Your task to perform on an android device: Show me productivity apps on the Play Store Image 0: 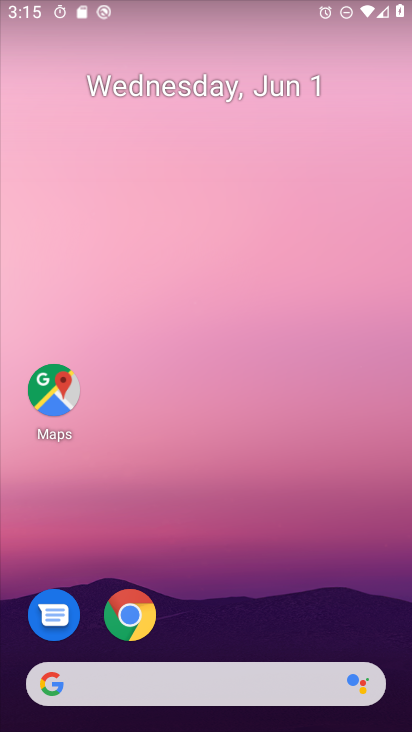
Step 0: drag from (242, 664) to (250, 5)
Your task to perform on an android device: Show me productivity apps on the Play Store Image 1: 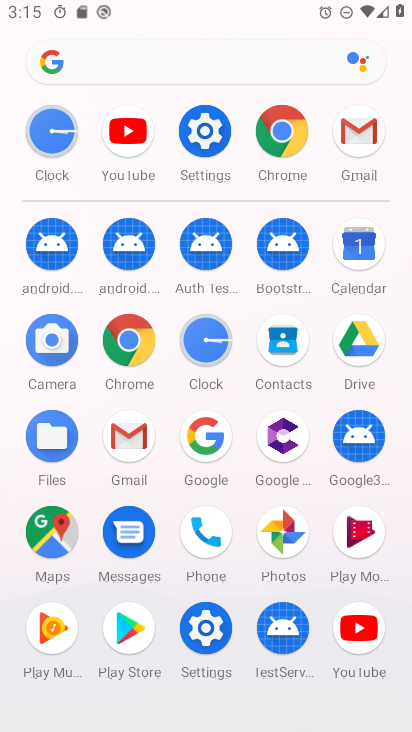
Step 1: click (129, 637)
Your task to perform on an android device: Show me productivity apps on the Play Store Image 2: 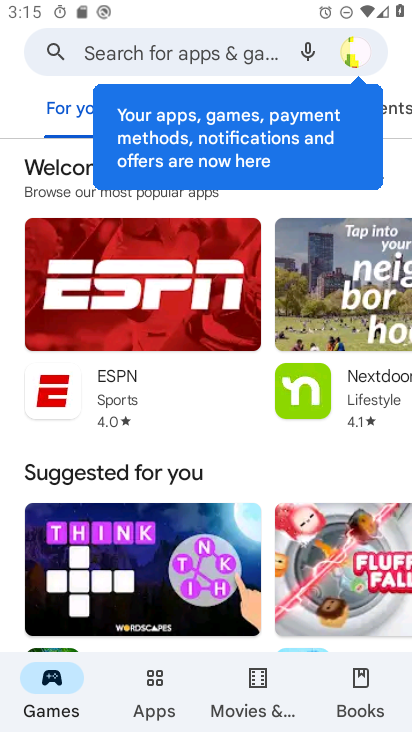
Step 2: click (166, 693)
Your task to perform on an android device: Show me productivity apps on the Play Store Image 3: 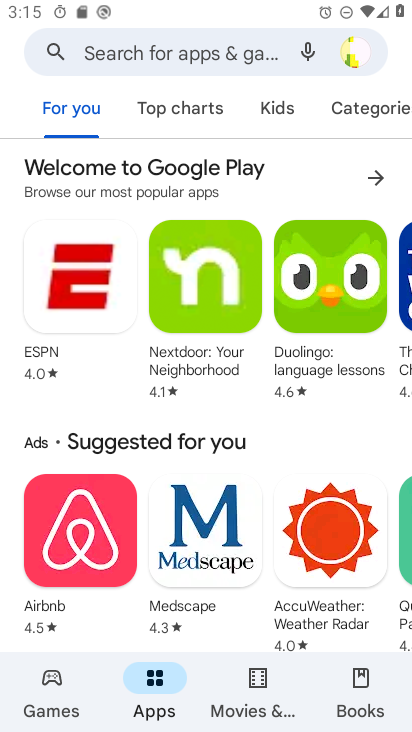
Step 3: drag from (271, 582) to (294, 75)
Your task to perform on an android device: Show me productivity apps on the Play Store Image 4: 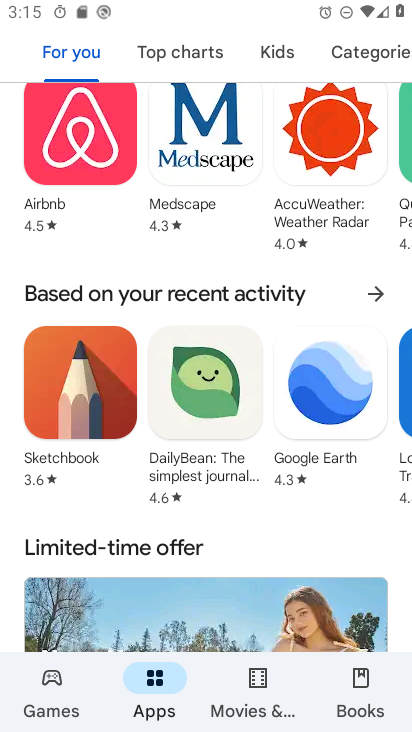
Step 4: drag from (232, 598) to (219, 128)
Your task to perform on an android device: Show me productivity apps on the Play Store Image 5: 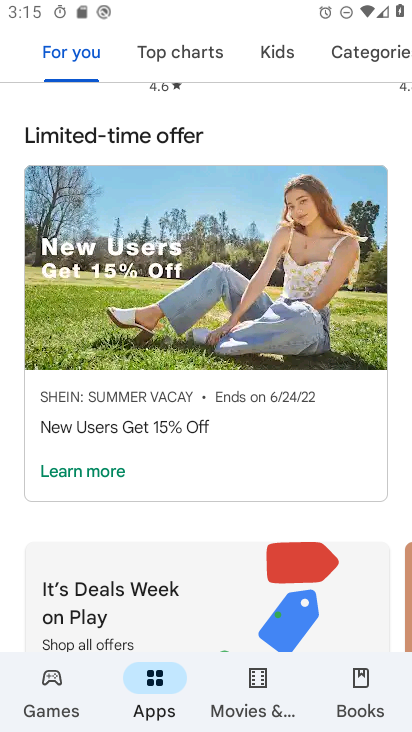
Step 5: drag from (232, 570) to (227, 190)
Your task to perform on an android device: Show me productivity apps on the Play Store Image 6: 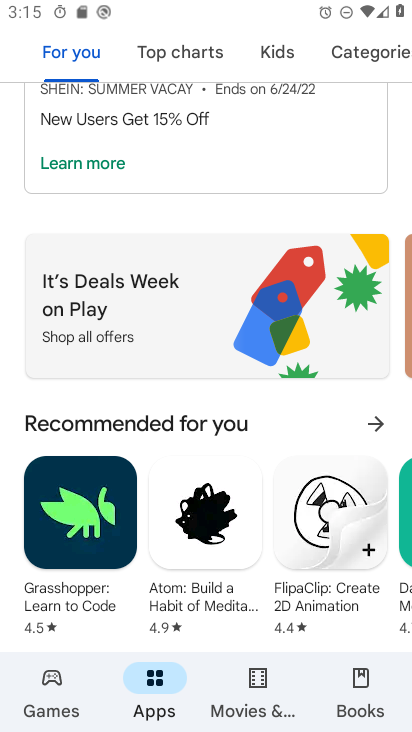
Step 6: drag from (263, 615) to (262, 214)
Your task to perform on an android device: Show me productivity apps on the Play Store Image 7: 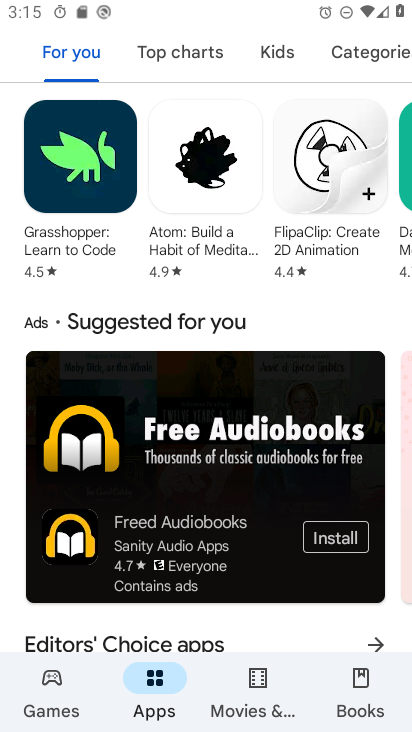
Step 7: drag from (251, 626) to (261, 138)
Your task to perform on an android device: Show me productivity apps on the Play Store Image 8: 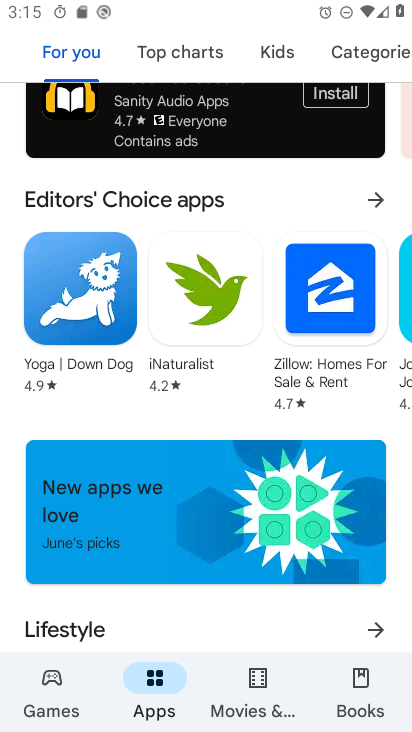
Step 8: drag from (287, 601) to (287, 174)
Your task to perform on an android device: Show me productivity apps on the Play Store Image 9: 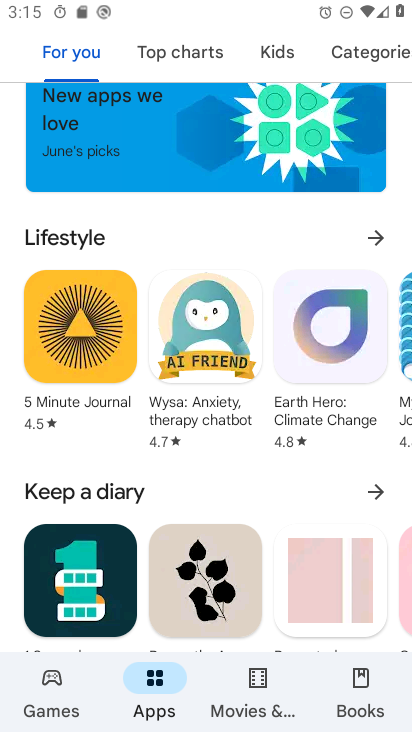
Step 9: drag from (299, 645) to (314, 168)
Your task to perform on an android device: Show me productivity apps on the Play Store Image 10: 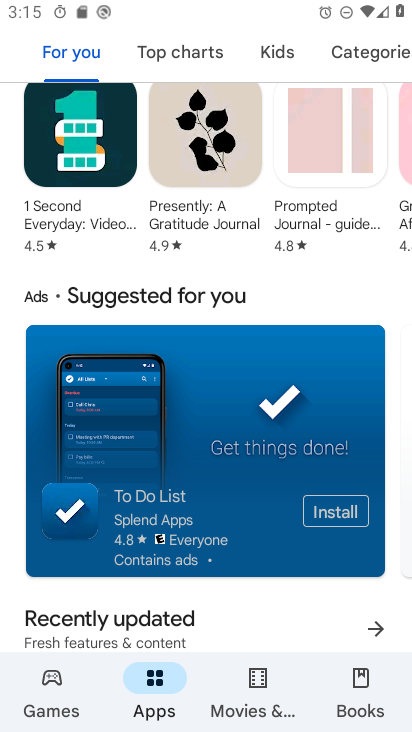
Step 10: drag from (329, 623) to (328, 150)
Your task to perform on an android device: Show me productivity apps on the Play Store Image 11: 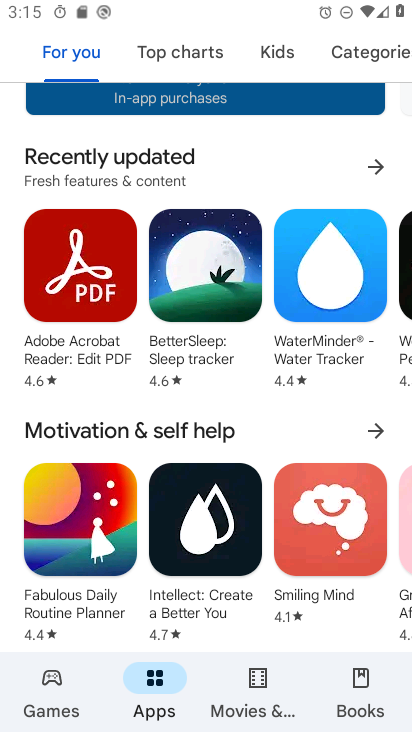
Step 11: drag from (309, 622) to (324, 98)
Your task to perform on an android device: Show me productivity apps on the Play Store Image 12: 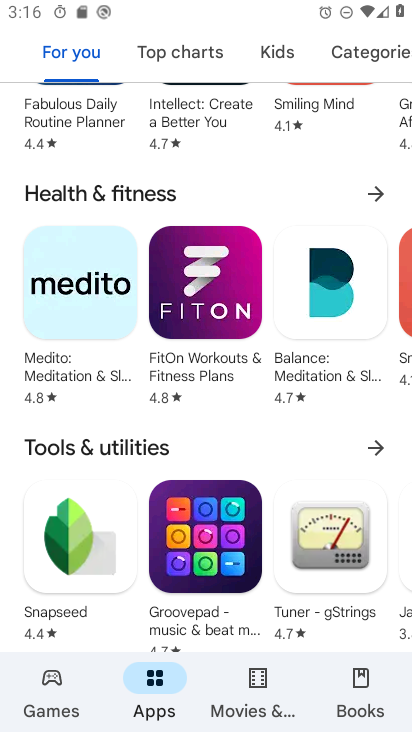
Step 12: drag from (306, 615) to (313, 134)
Your task to perform on an android device: Show me productivity apps on the Play Store Image 13: 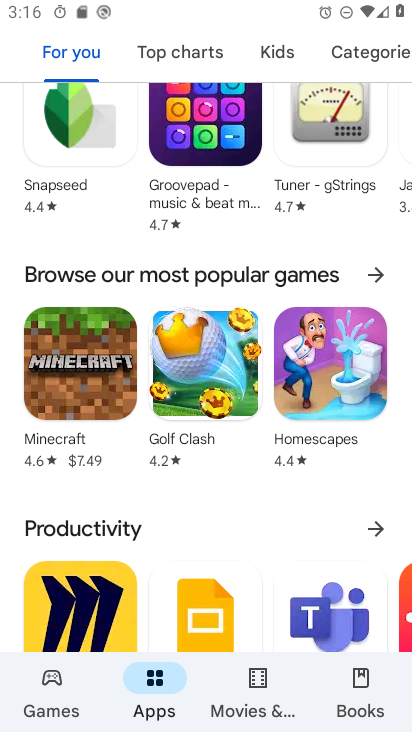
Step 13: drag from (315, 520) to (324, 298)
Your task to perform on an android device: Show me productivity apps on the Play Store Image 14: 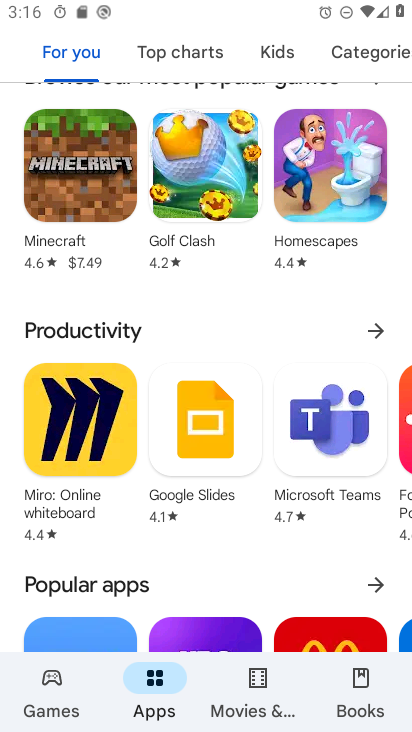
Step 14: click (358, 334)
Your task to perform on an android device: Show me productivity apps on the Play Store Image 15: 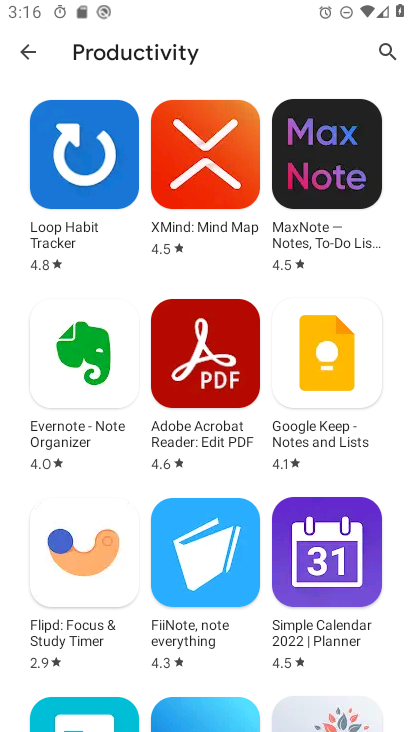
Step 15: task complete